Your task to perform on an android device: Go to settings Image 0: 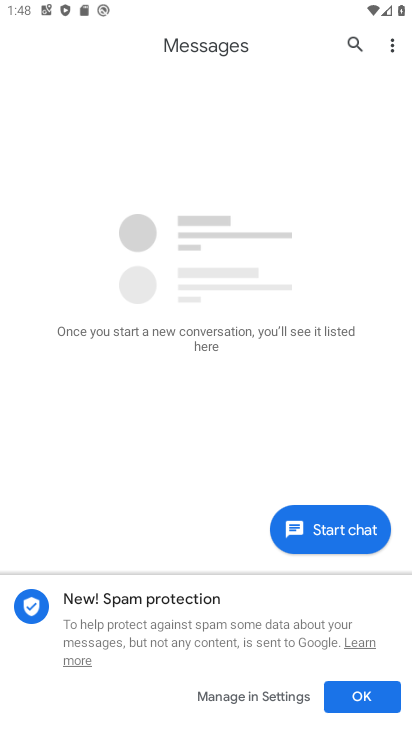
Step 0: press home button
Your task to perform on an android device: Go to settings Image 1: 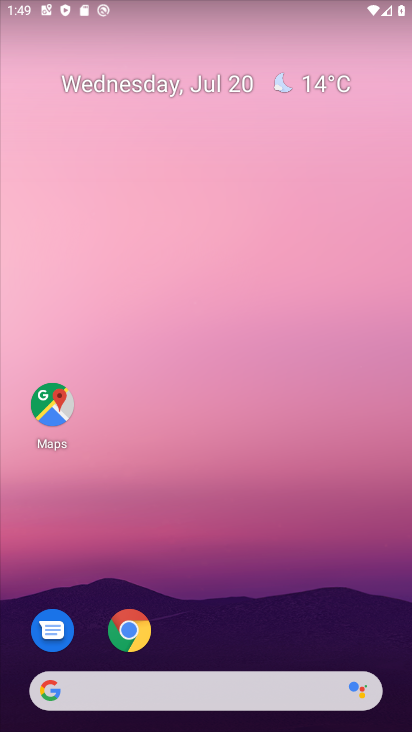
Step 1: drag from (244, 701) to (368, 184)
Your task to perform on an android device: Go to settings Image 2: 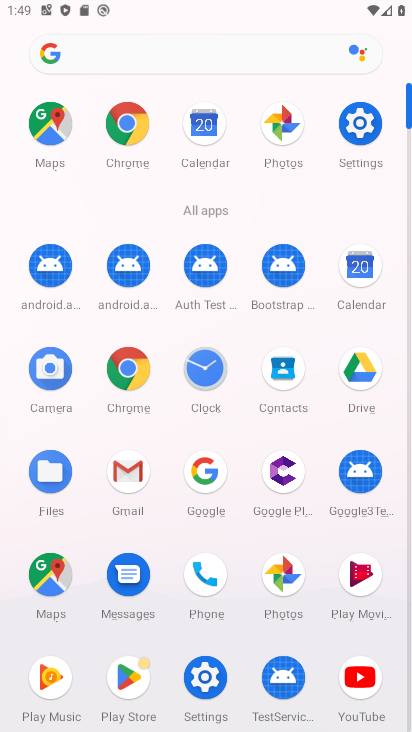
Step 2: click (373, 137)
Your task to perform on an android device: Go to settings Image 3: 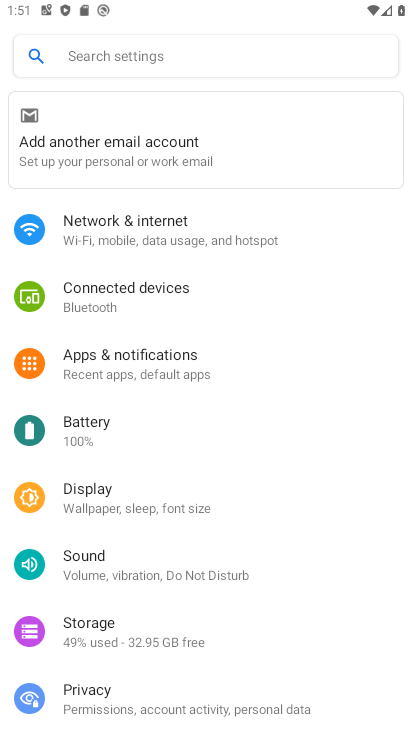
Step 3: task complete